Your task to perform on an android device: Open Amazon Image 0: 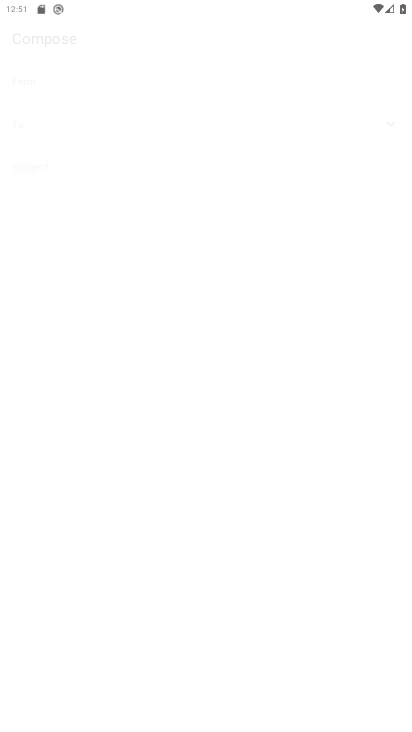
Step 0: drag from (261, 636) to (369, 340)
Your task to perform on an android device: Open Amazon Image 1: 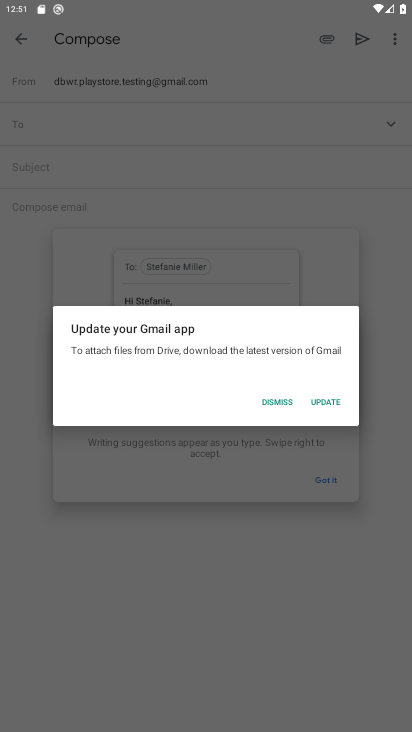
Step 1: press home button
Your task to perform on an android device: Open Amazon Image 2: 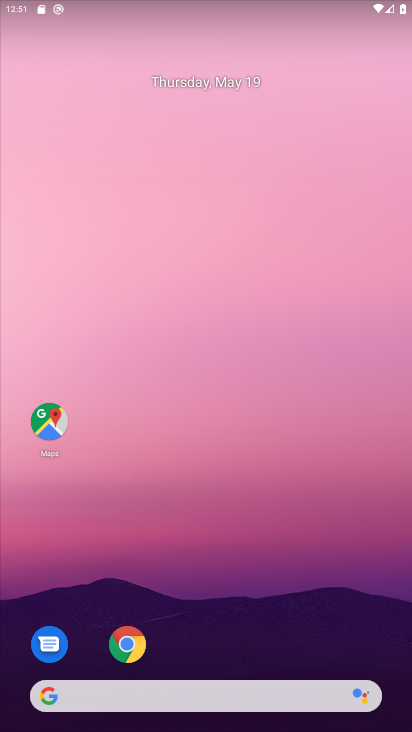
Step 2: click (133, 641)
Your task to perform on an android device: Open Amazon Image 3: 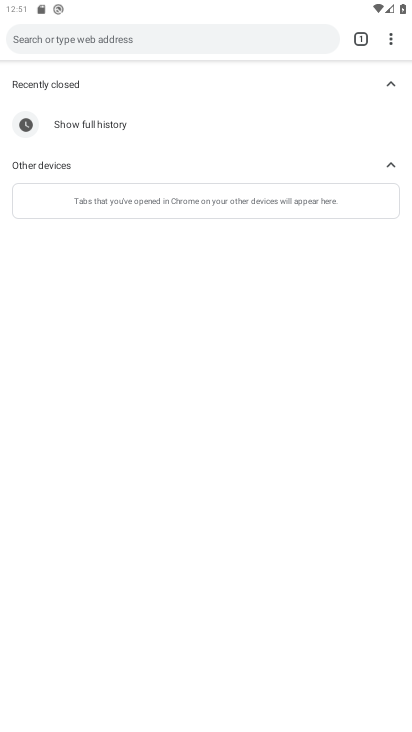
Step 3: click (71, 35)
Your task to perform on an android device: Open Amazon Image 4: 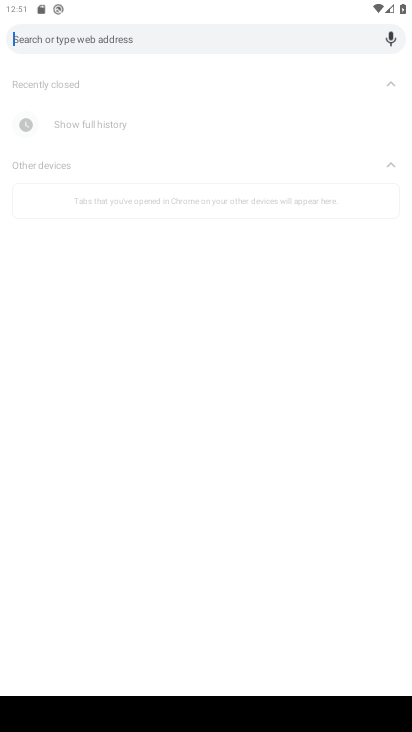
Step 4: type "amazon"
Your task to perform on an android device: Open Amazon Image 5: 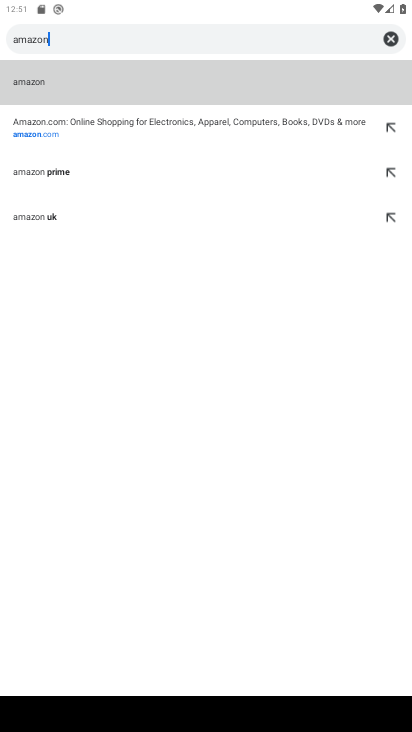
Step 5: click (177, 88)
Your task to perform on an android device: Open Amazon Image 6: 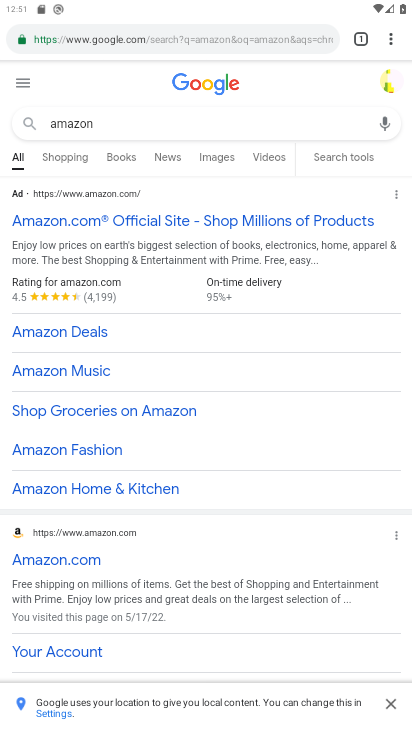
Step 6: task complete